Your task to perform on an android device: Go to battery settings Image 0: 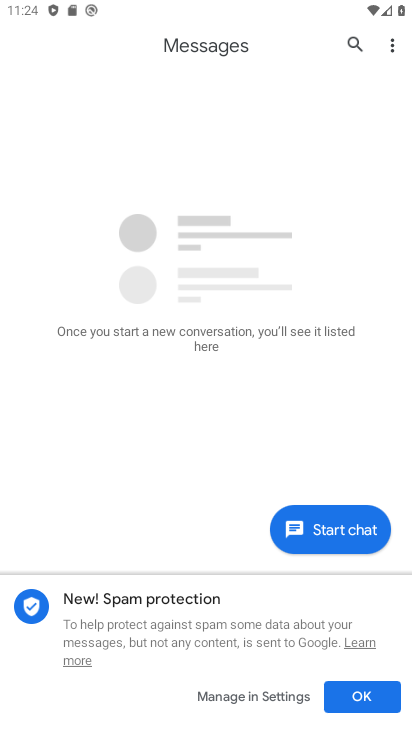
Step 0: press home button
Your task to perform on an android device: Go to battery settings Image 1: 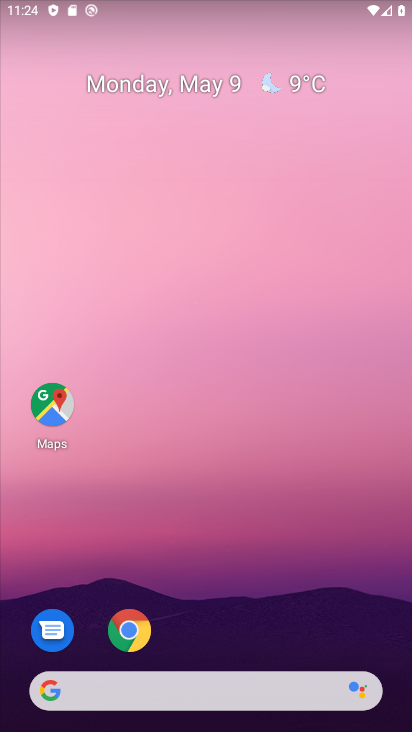
Step 1: drag from (262, 602) to (164, 144)
Your task to perform on an android device: Go to battery settings Image 2: 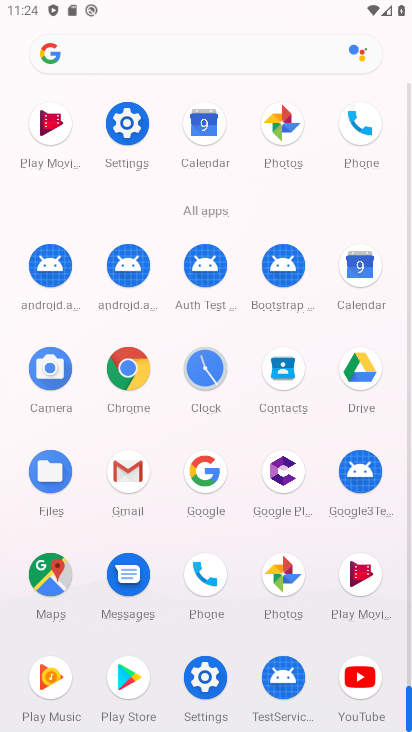
Step 2: click (128, 121)
Your task to perform on an android device: Go to battery settings Image 3: 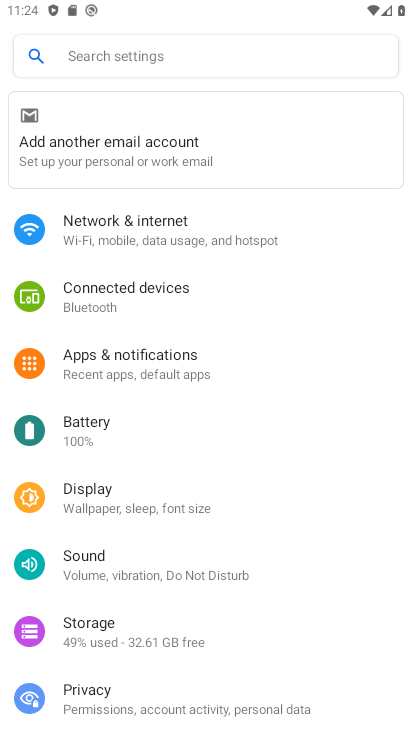
Step 3: click (85, 416)
Your task to perform on an android device: Go to battery settings Image 4: 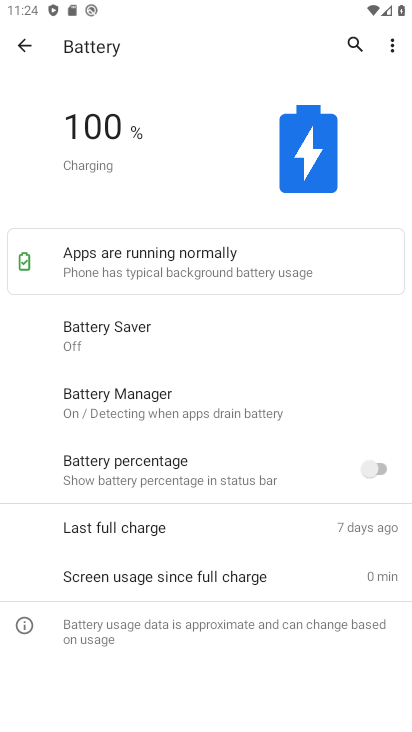
Step 4: task complete